Your task to perform on an android device: Open Youtube and go to "Your channel" Image 0: 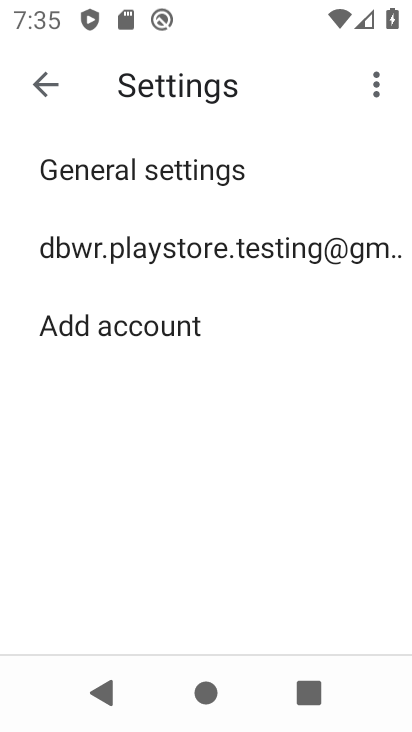
Step 0: press home button
Your task to perform on an android device: Open Youtube and go to "Your channel" Image 1: 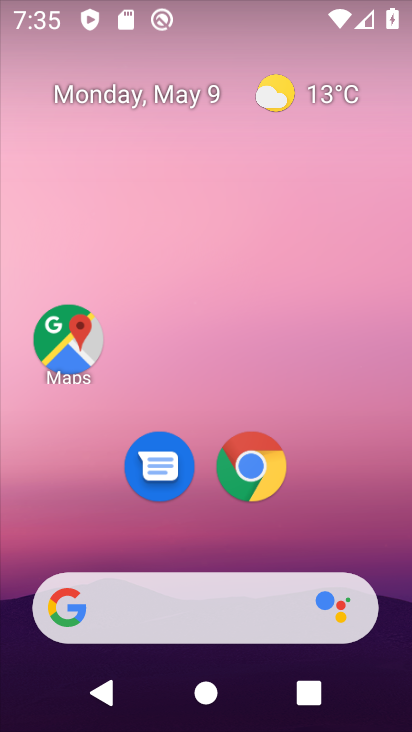
Step 1: drag from (389, 621) to (265, 116)
Your task to perform on an android device: Open Youtube and go to "Your channel" Image 2: 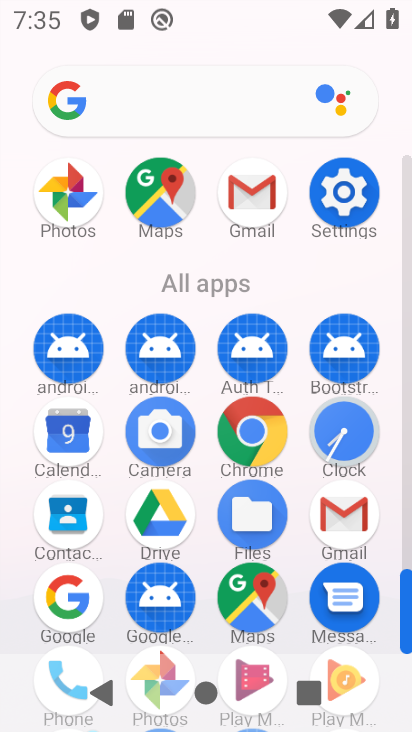
Step 2: drag from (288, 610) to (236, 158)
Your task to perform on an android device: Open Youtube and go to "Your channel" Image 3: 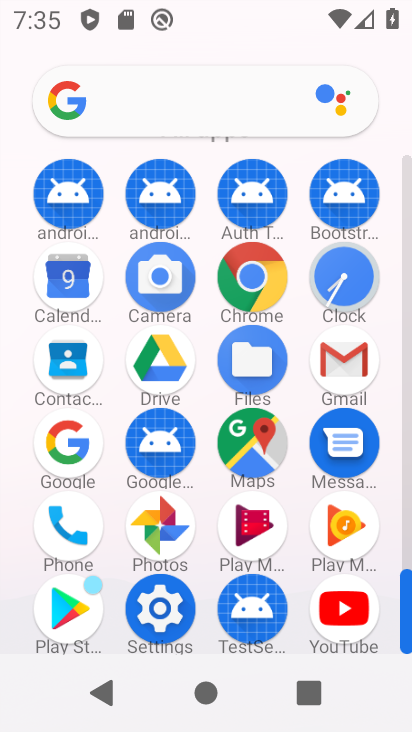
Step 3: drag from (293, 512) to (282, 236)
Your task to perform on an android device: Open Youtube and go to "Your channel" Image 4: 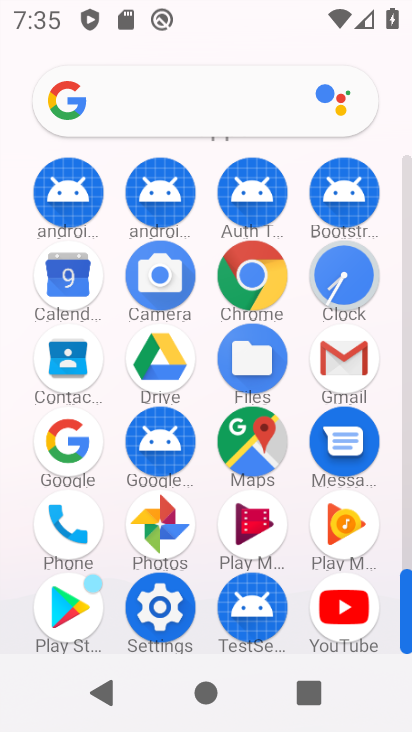
Step 4: click (347, 598)
Your task to perform on an android device: Open Youtube and go to "Your channel" Image 5: 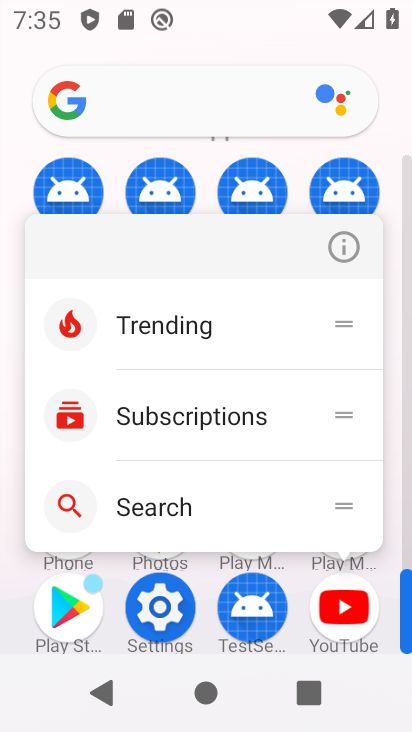
Step 5: click (335, 595)
Your task to perform on an android device: Open Youtube and go to "Your channel" Image 6: 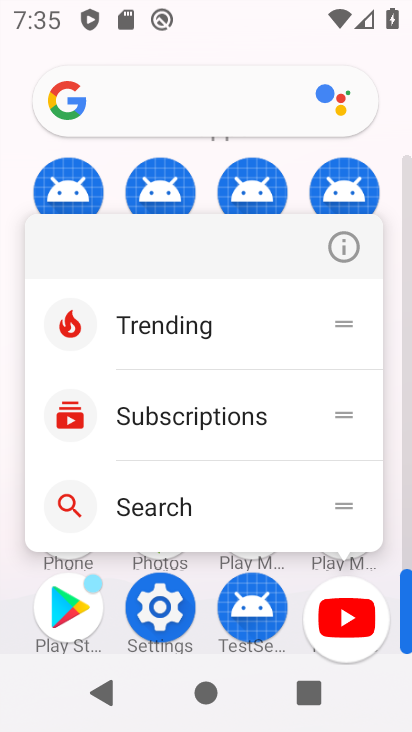
Step 6: click (338, 607)
Your task to perform on an android device: Open Youtube and go to "Your channel" Image 7: 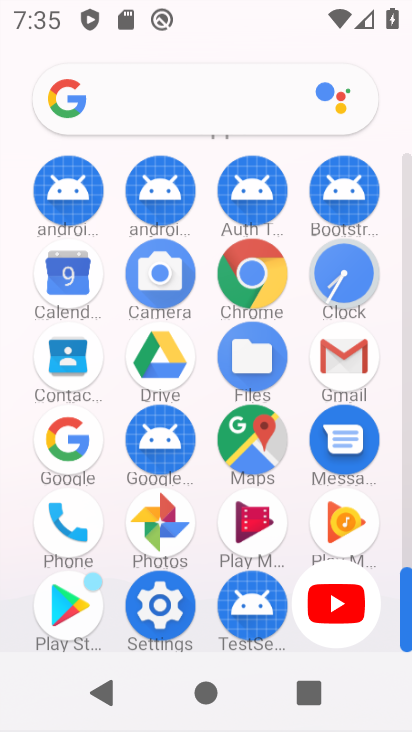
Step 7: click (338, 607)
Your task to perform on an android device: Open Youtube and go to "Your channel" Image 8: 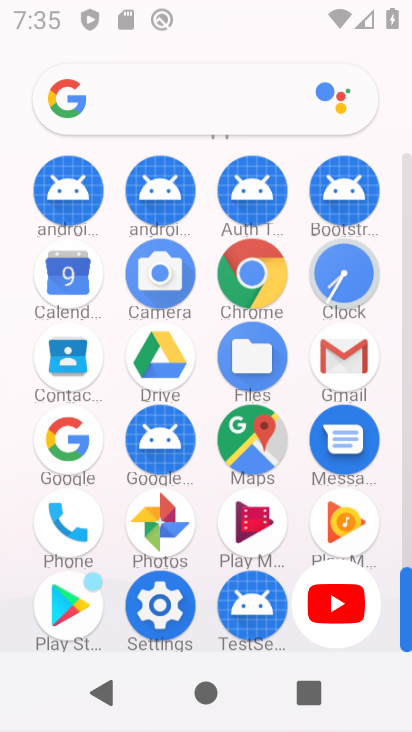
Step 8: click (338, 607)
Your task to perform on an android device: Open Youtube and go to "Your channel" Image 9: 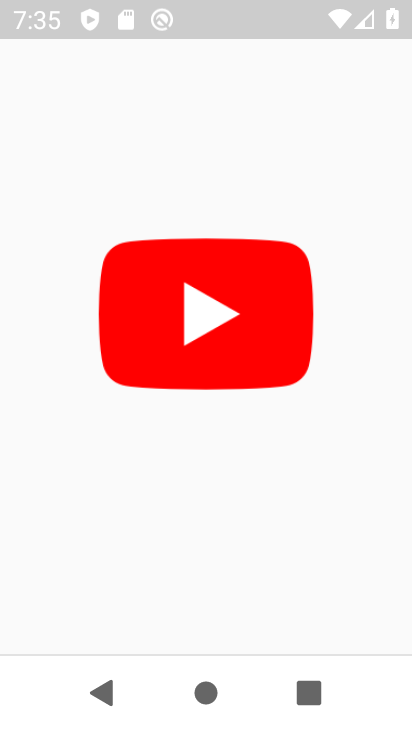
Step 9: click (338, 607)
Your task to perform on an android device: Open Youtube and go to "Your channel" Image 10: 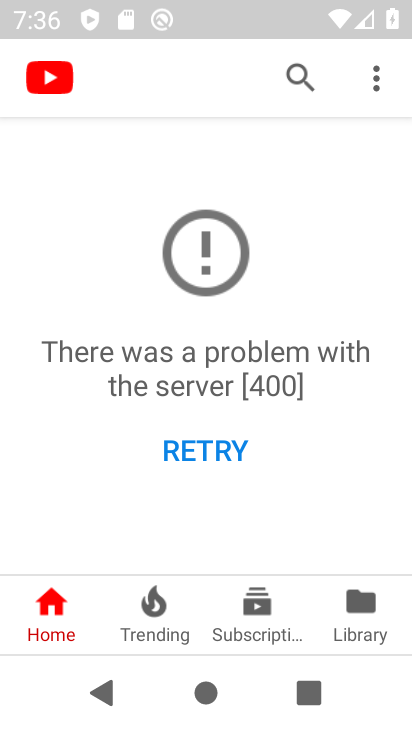
Step 10: task complete